Your task to perform on an android device: add a label to a message in the gmail app Image 0: 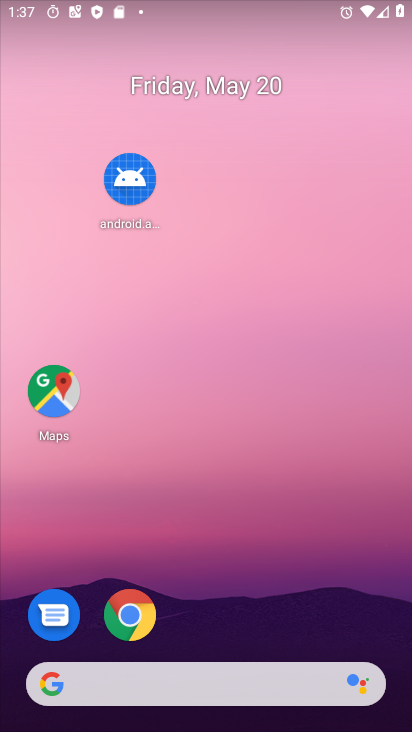
Step 0: drag from (308, 584) to (256, 0)
Your task to perform on an android device: add a label to a message in the gmail app Image 1: 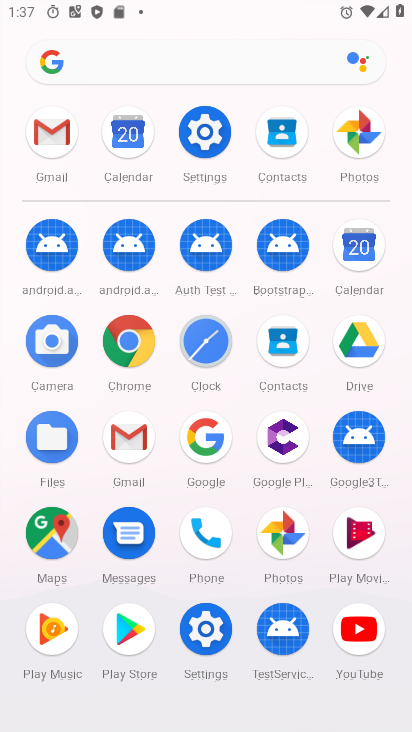
Step 1: click (126, 454)
Your task to perform on an android device: add a label to a message in the gmail app Image 2: 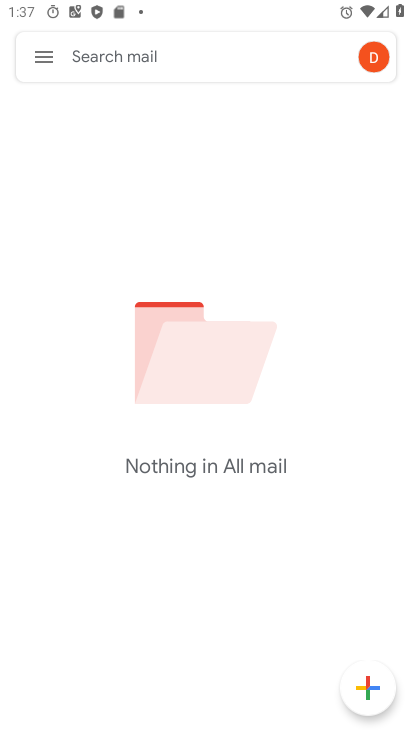
Step 2: task complete